Your task to perform on an android device: open a new tab in the chrome app Image 0: 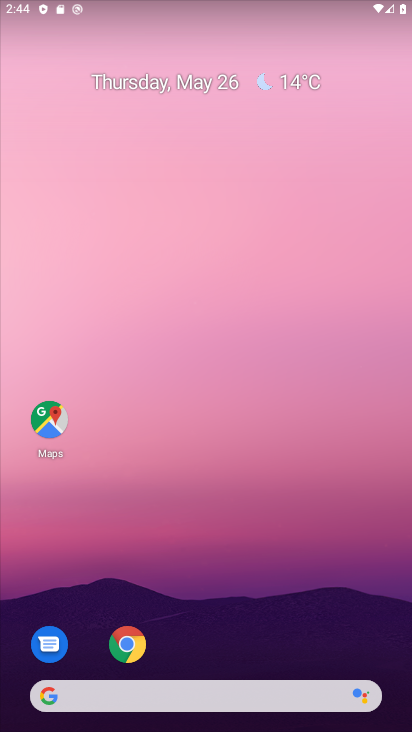
Step 0: drag from (328, 623) to (326, 204)
Your task to perform on an android device: open a new tab in the chrome app Image 1: 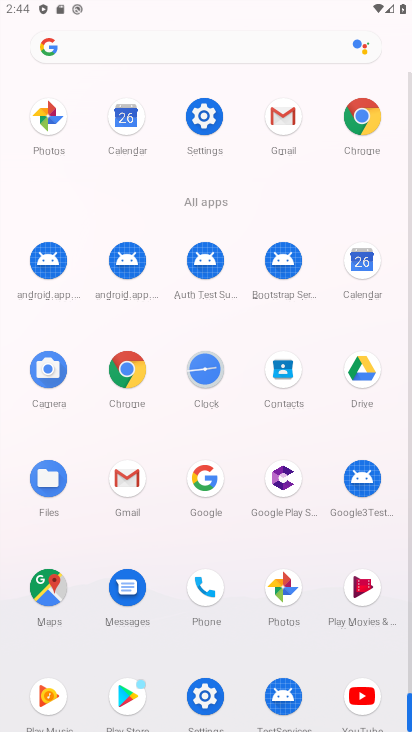
Step 1: click (134, 368)
Your task to perform on an android device: open a new tab in the chrome app Image 2: 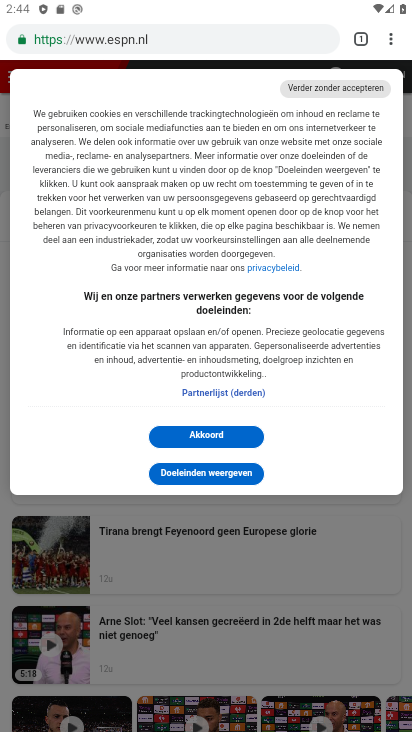
Step 2: click (370, 35)
Your task to perform on an android device: open a new tab in the chrome app Image 3: 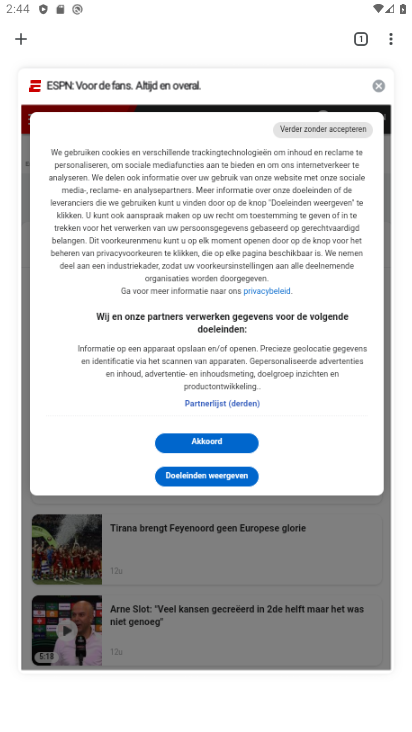
Step 3: click (28, 40)
Your task to perform on an android device: open a new tab in the chrome app Image 4: 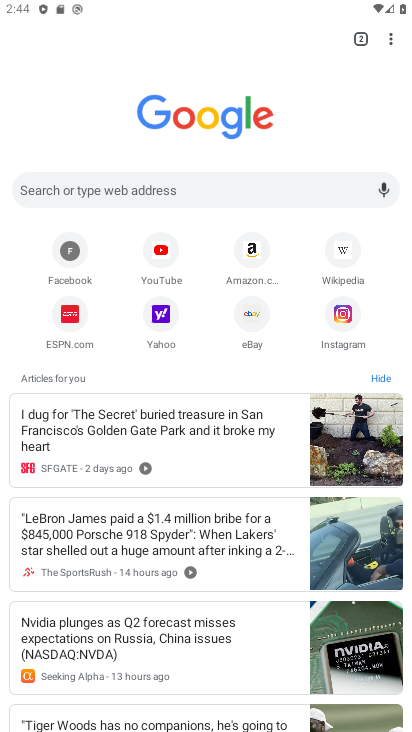
Step 4: task complete